Your task to perform on an android device: Open calendar and show me the third week of next month Image 0: 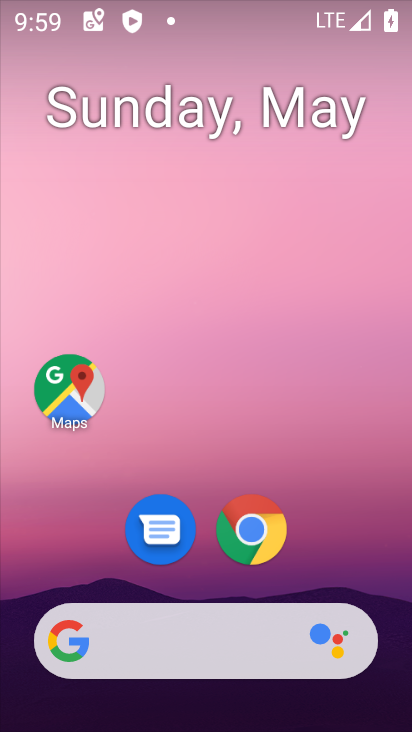
Step 0: task complete